Your task to perform on an android device: Open Chrome and go to settings Image 0: 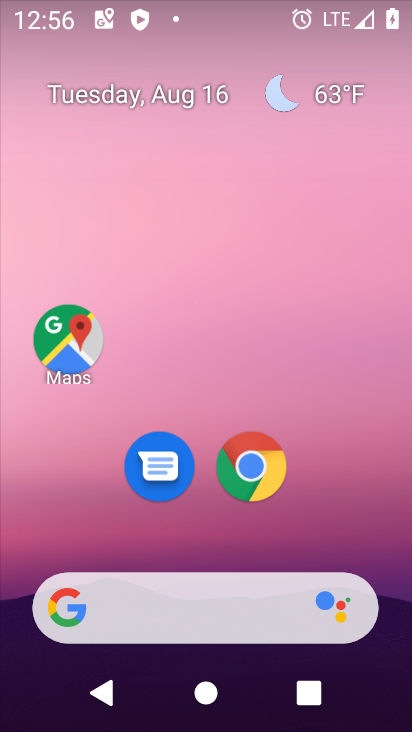
Step 0: drag from (177, 546) to (168, 124)
Your task to perform on an android device: Open Chrome and go to settings Image 1: 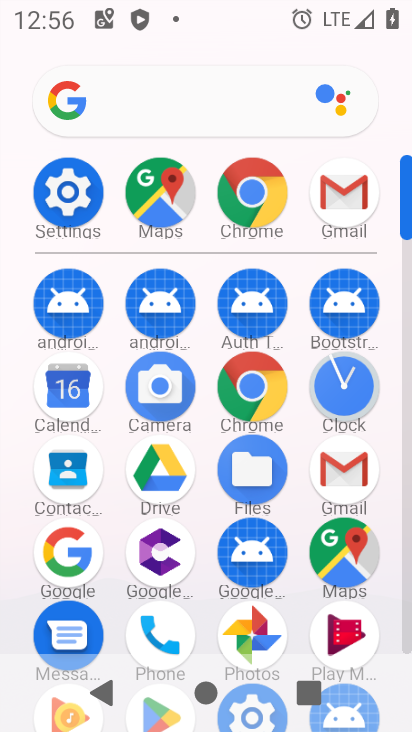
Step 1: click (246, 186)
Your task to perform on an android device: Open Chrome and go to settings Image 2: 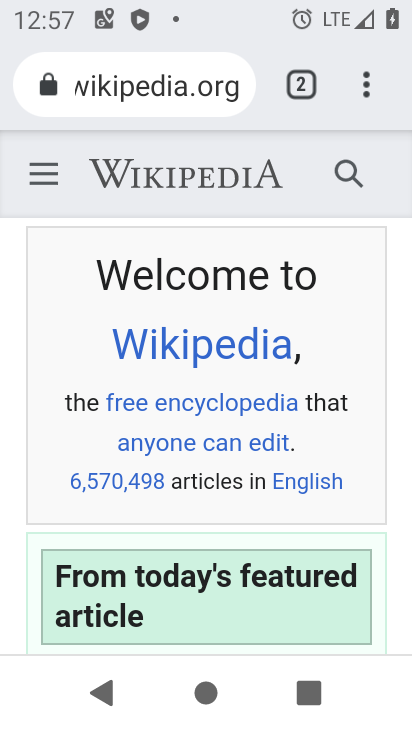
Step 2: click (363, 87)
Your task to perform on an android device: Open Chrome and go to settings Image 3: 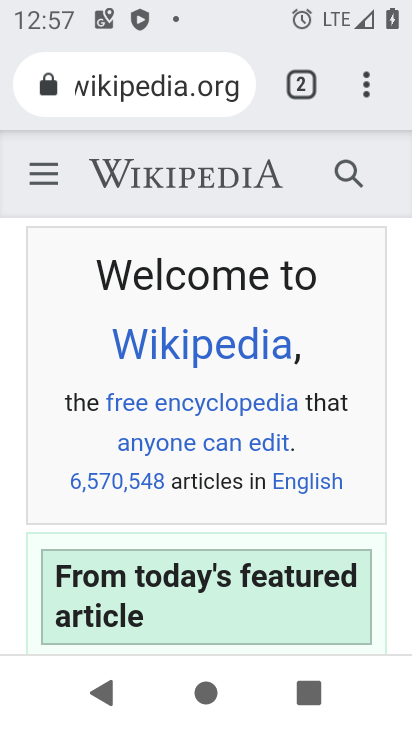
Step 3: click (363, 87)
Your task to perform on an android device: Open Chrome and go to settings Image 4: 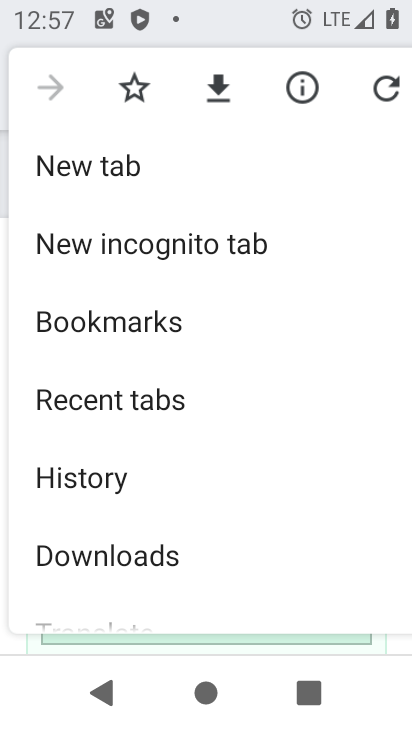
Step 4: drag from (55, 529) to (125, 163)
Your task to perform on an android device: Open Chrome and go to settings Image 5: 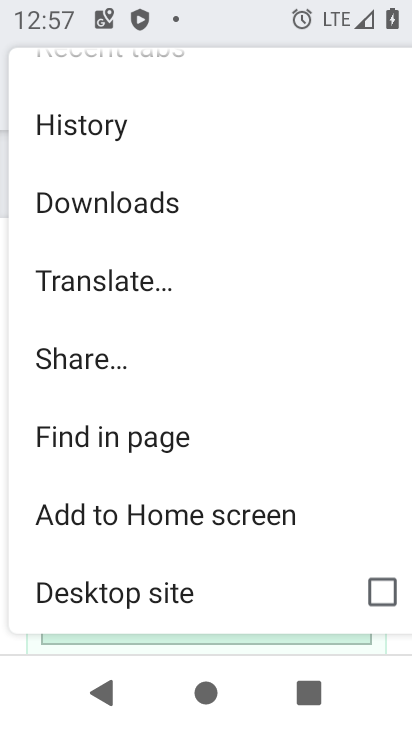
Step 5: drag from (94, 601) to (116, 298)
Your task to perform on an android device: Open Chrome and go to settings Image 6: 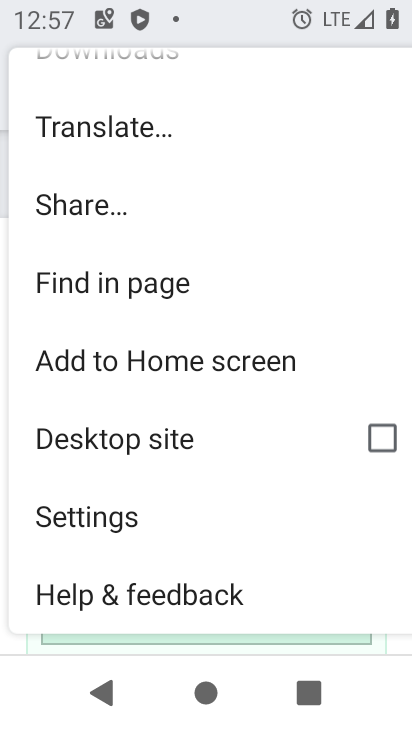
Step 6: click (90, 524)
Your task to perform on an android device: Open Chrome and go to settings Image 7: 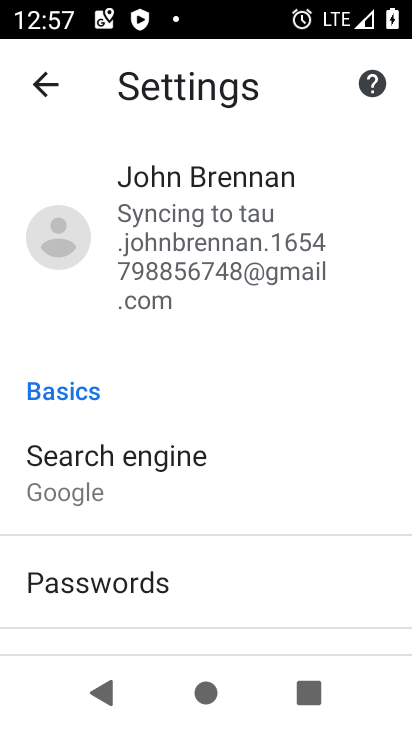
Step 7: task complete